Your task to perform on an android device: Open the stopwatch Image 0: 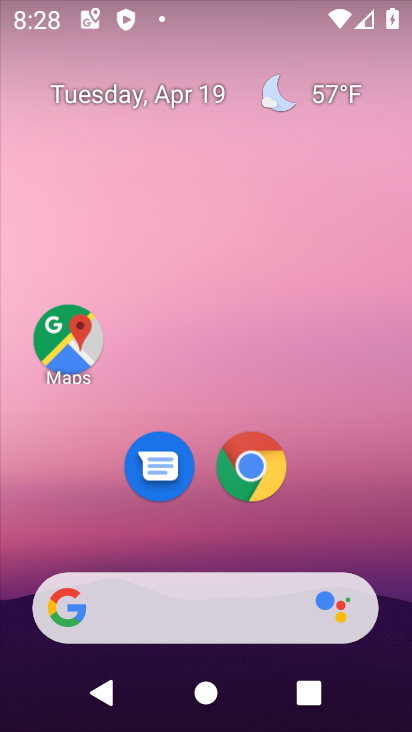
Step 0: drag from (208, 728) to (207, 50)
Your task to perform on an android device: Open the stopwatch Image 1: 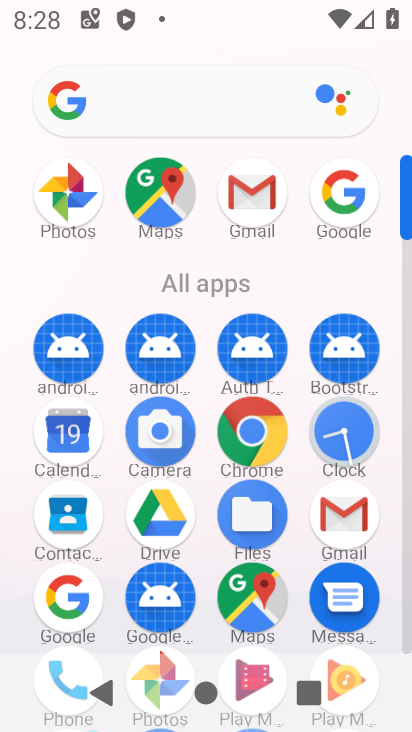
Step 1: click (342, 430)
Your task to perform on an android device: Open the stopwatch Image 2: 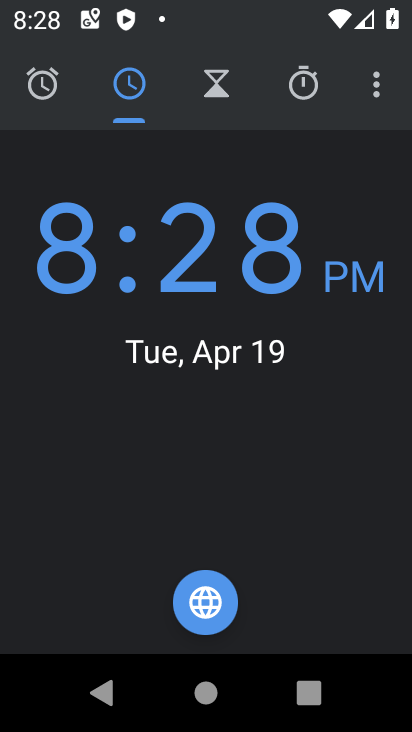
Step 2: click (316, 80)
Your task to perform on an android device: Open the stopwatch Image 3: 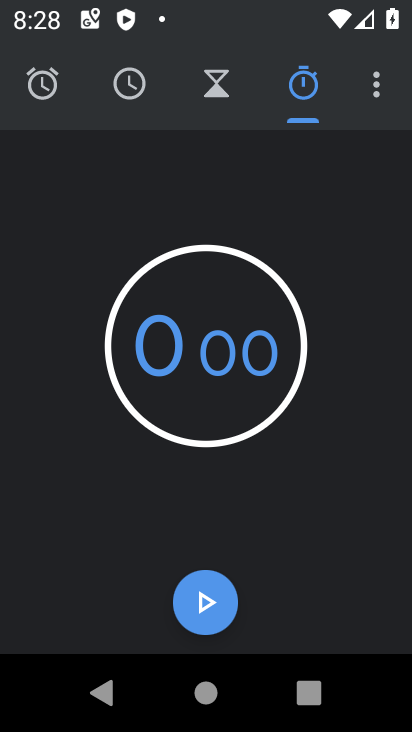
Step 3: task complete